Your task to perform on an android device: open device folders in google photos Image 0: 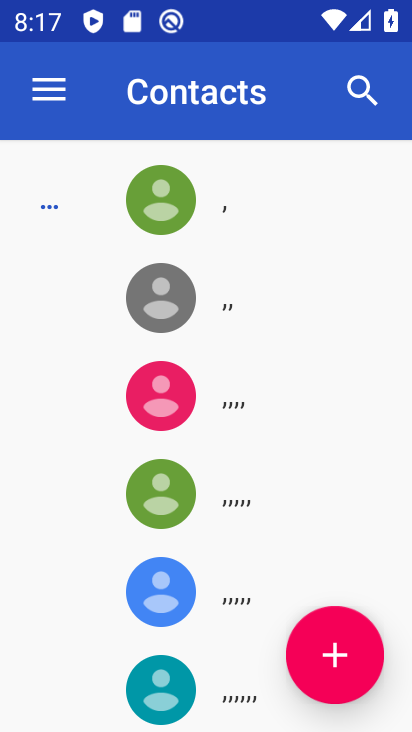
Step 0: press home button
Your task to perform on an android device: open device folders in google photos Image 1: 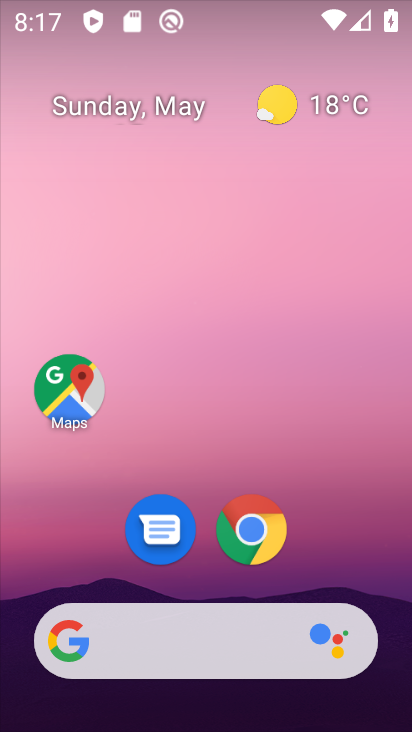
Step 1: drag from (363, 593) to (316, 5)
Your task to perform on an android device: open device folders in google photos Image 2: 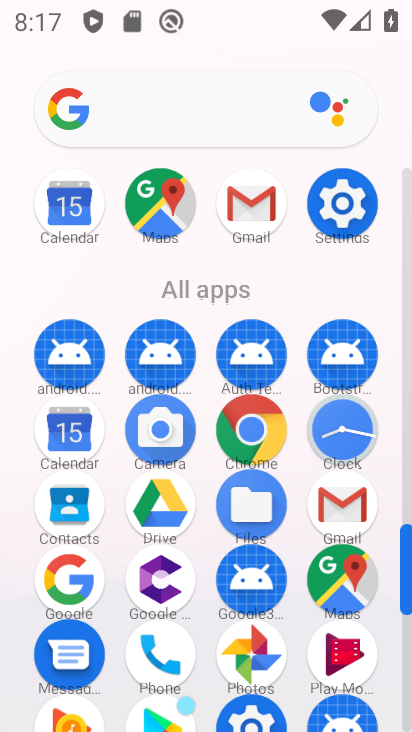
Step 2: click (251, 646)
Your task to perform on an android device: open device folders in google photos Image 3: 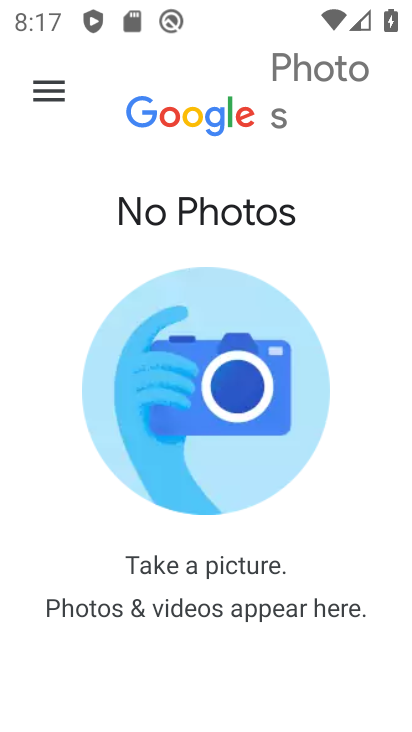
Step 3: click (42, 94)
Your task to perform on an android device: open device folders in google photos Image 4: 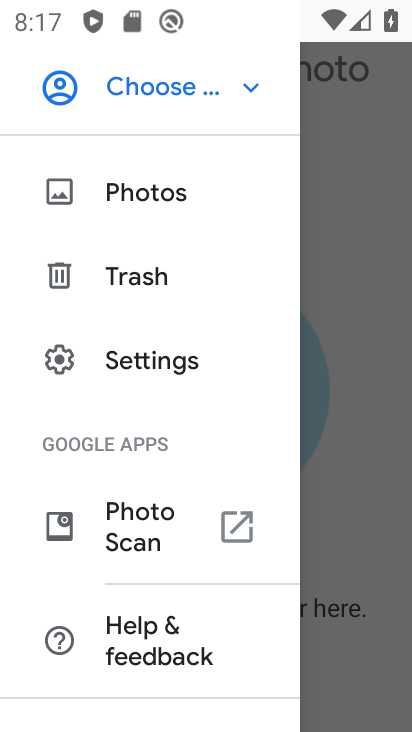
Step 4: drag from (203, 292) to (180, 478)
Your task to perform on an android device: open device folders in google photos Image 5: 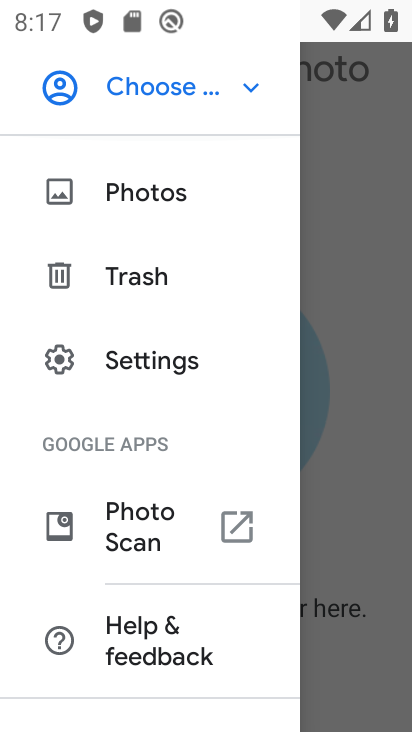
Step 5: drag from (152, 478) to (146, 190)
Your task to perform on an android device: open device folders in google photos Image 6: 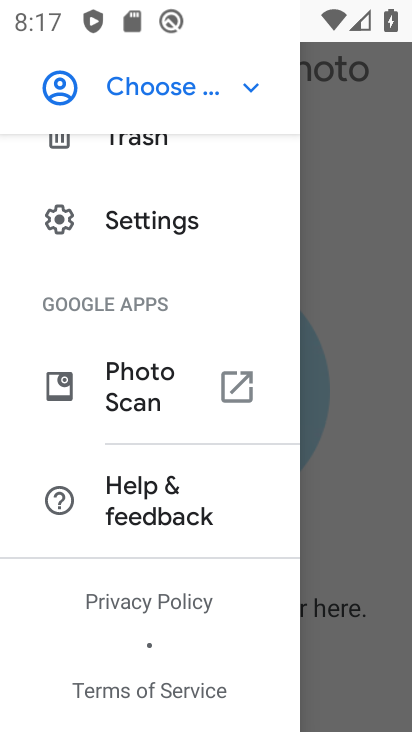
Step 6: drag from (145, 170) to (135, 635)
Your task to perform on an android device: open device folders in google photos Image 7: 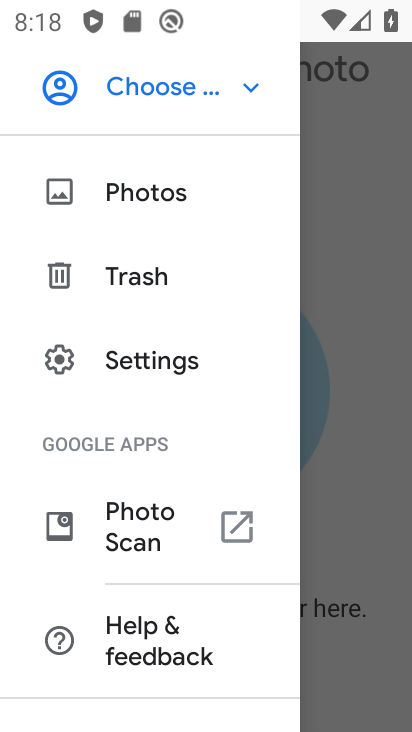
Step 7: drag from (142, 292) to (150, 488)
Your task to perform on an android device: open device folders in google photos Image 8: 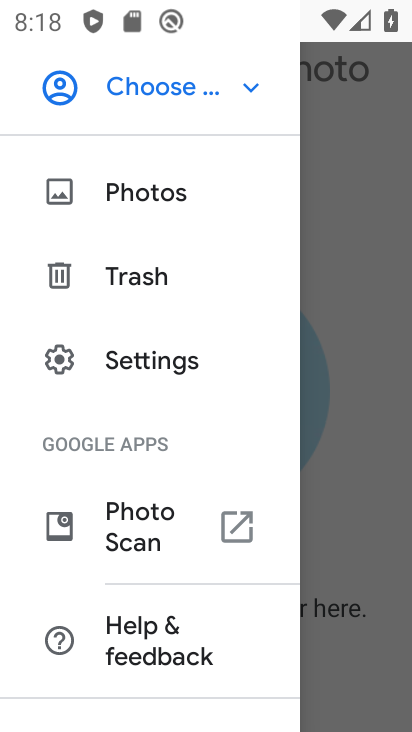
Step 8: drag from (185, 229) to (134, 587)
Your task to perform on an android device: open device folders in google photos Image 9: 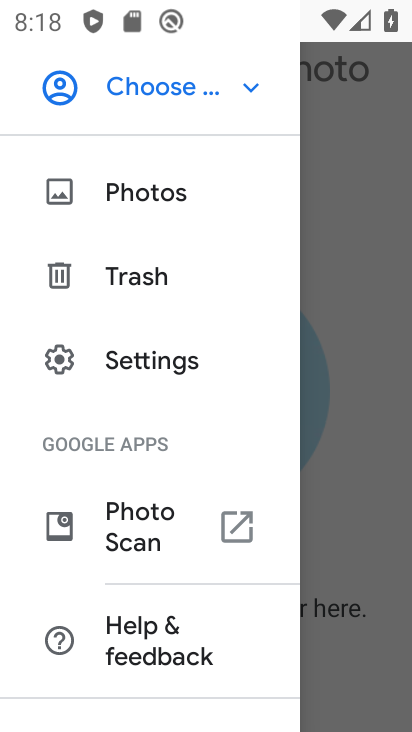
Step 9: drag from (153, 237) to (146, 584)
Your task to perform on an android device: open device folders in google photos Image 10: 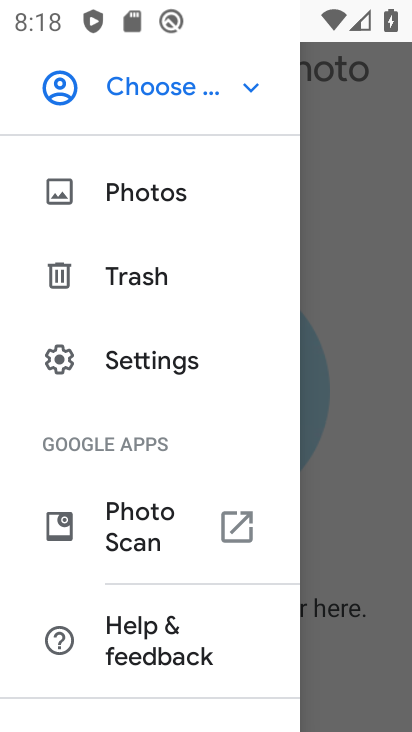
Step 10: drag from (172, 239) to (131, 624)
Your task to perform on an android device: open device folders in google photos Image 11: 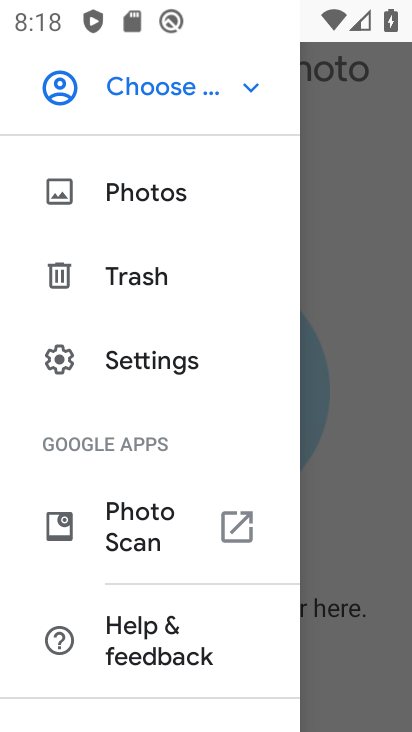
Step 11: click (251, 91)
Your task to perform on an android device: open device folders in google photos Image 12: 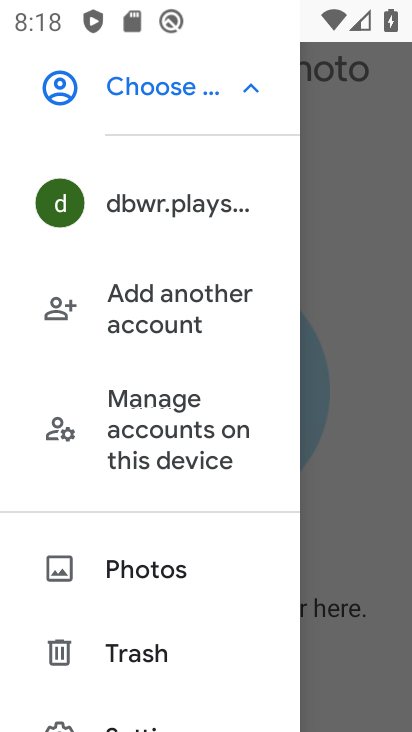
Step 12: task complete